Your task to perform on an android device: Check the news Image 0: 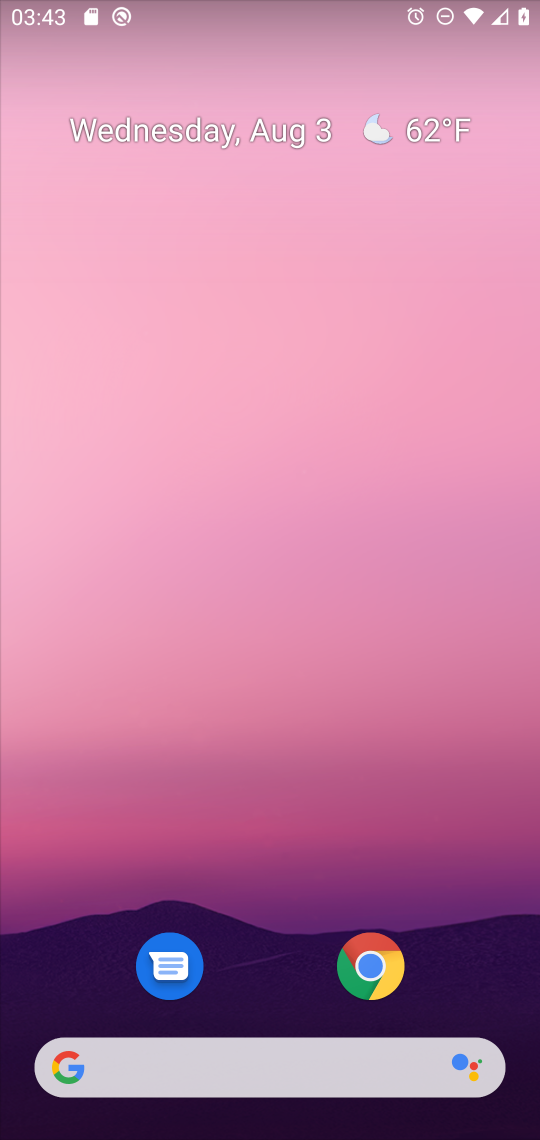
Step 0: drag from (278, 940) to (217, 252)
Your task to perform on an android device: Check the news Image 1: 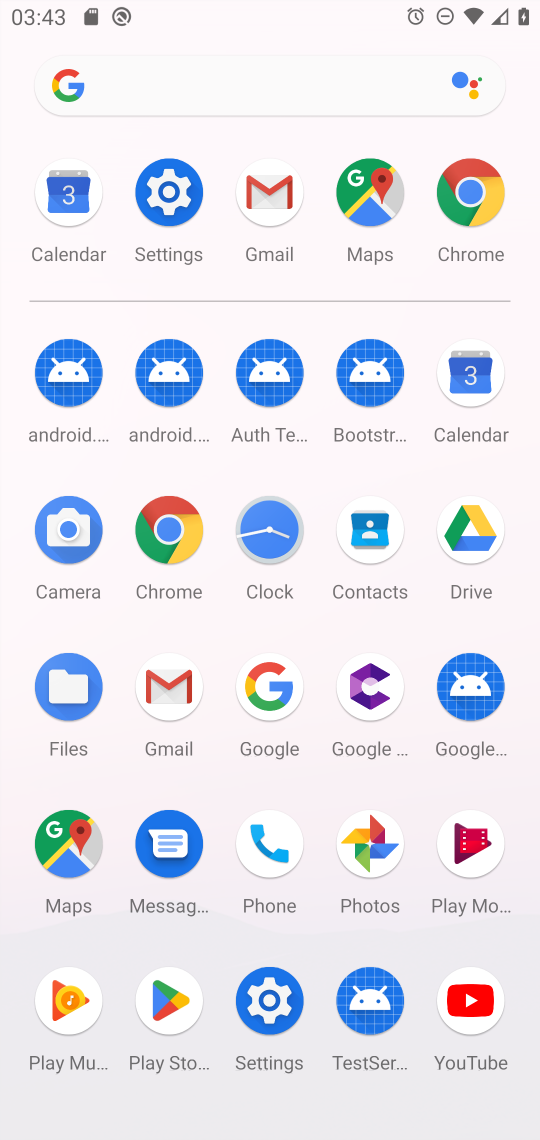
Step 1: click (248, 691)
Your task to perform on an android device: Check the news Image 2: 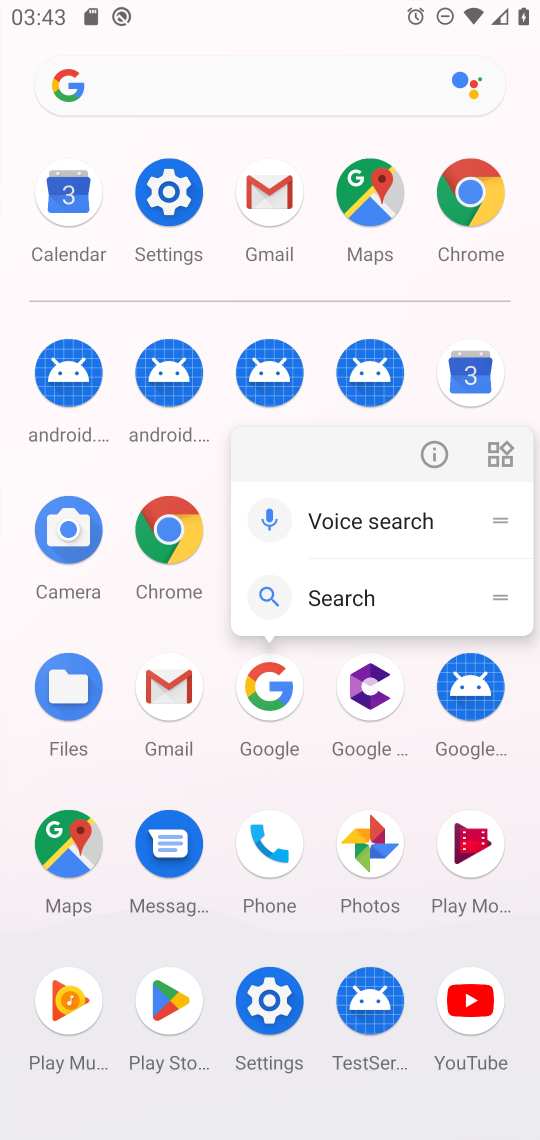
Step 2: click (260, 664)
Your task to perform on an android device: Check the news Image 3: 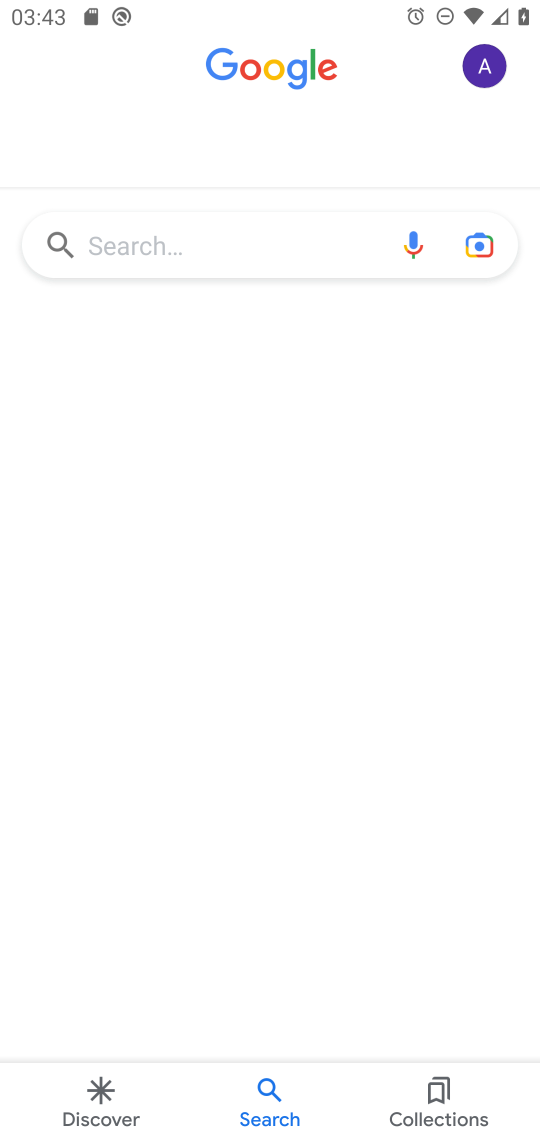
Step 3: click (185, 250)
Your task to perform on an android device: Check the news Image 4: 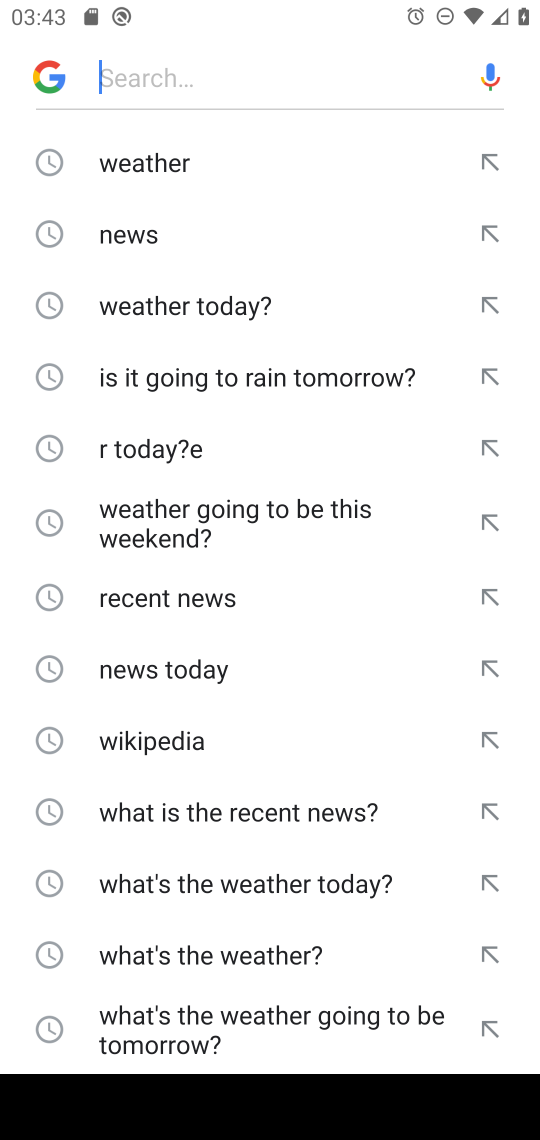
Step 4: click (156, 234)
Your task to perform on an android device: Check the news Image 5: 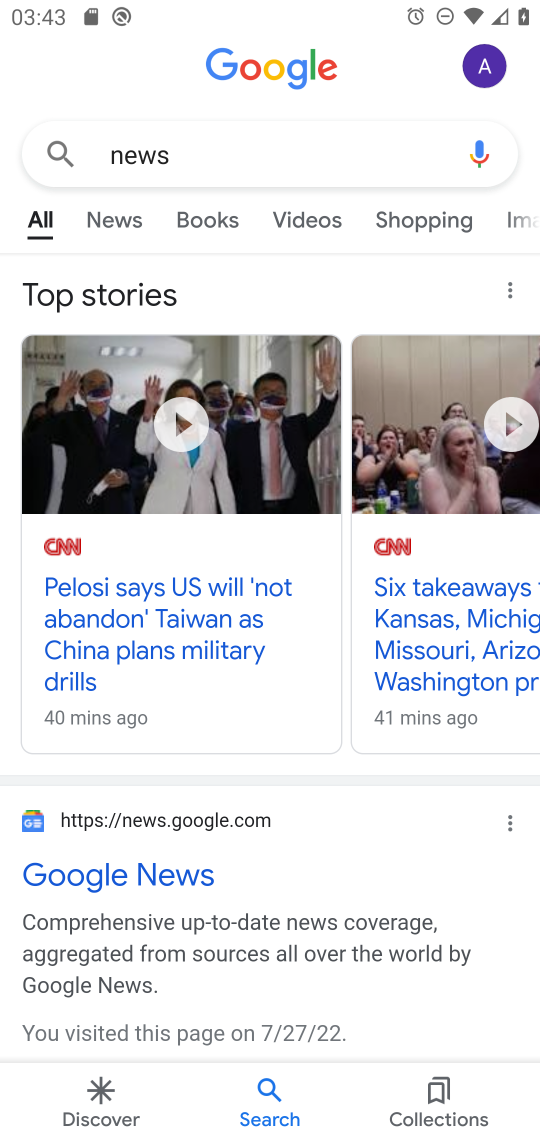
Step 5: click (119, 221)
Your task to perform on an android device: Check the news Image 6: 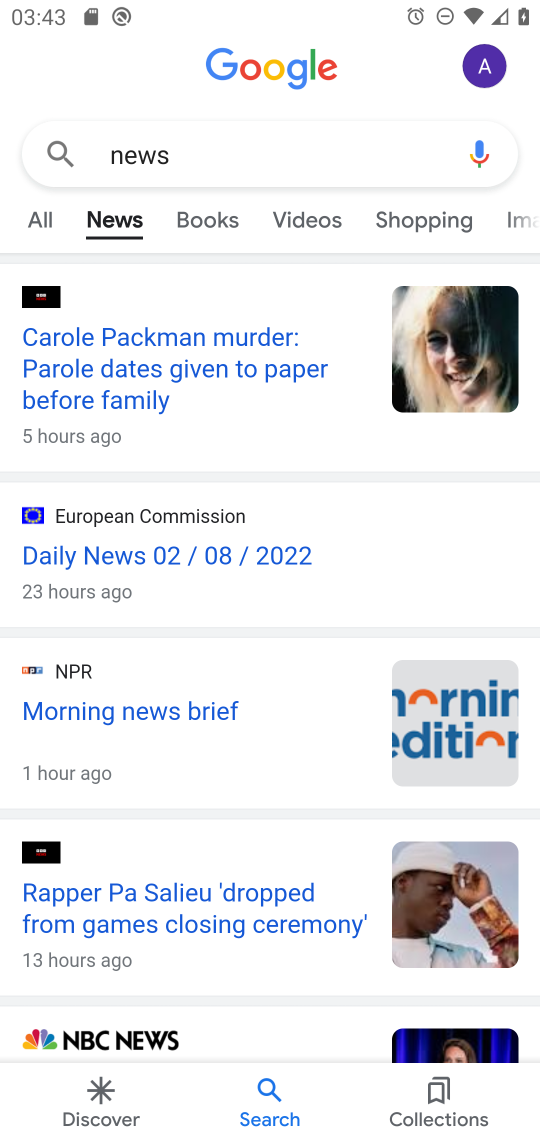
Step 6: task complete